Your task to perform on an android device: Open the web browser Image 0: 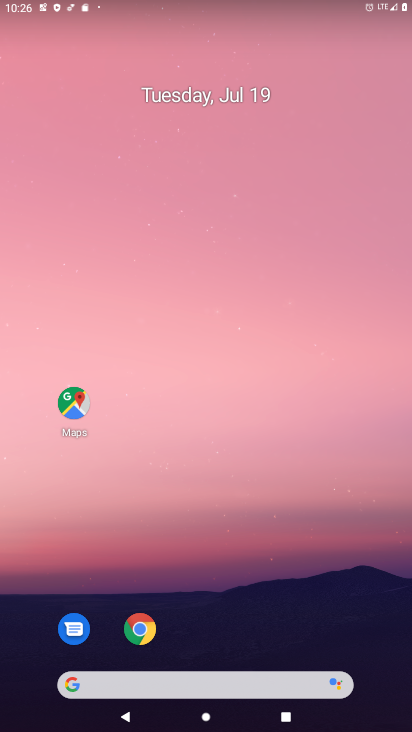
Step 0: click (141, 619)
Your task to perform on an android device: Open the web browser Image 1: 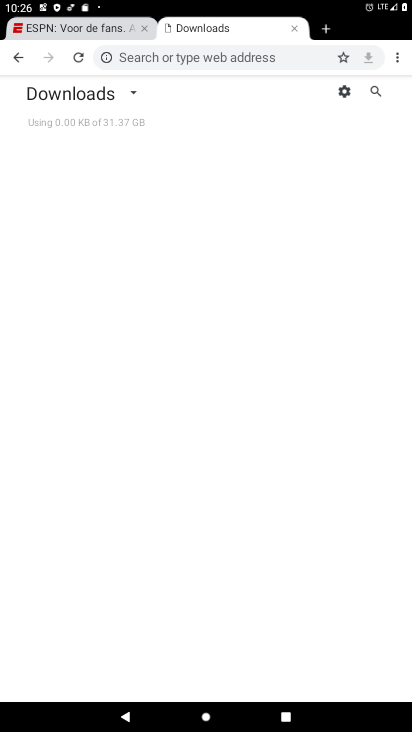
Step 1: click (291, 27)
Your task to perform on an android device: Open the web browser Image 2: 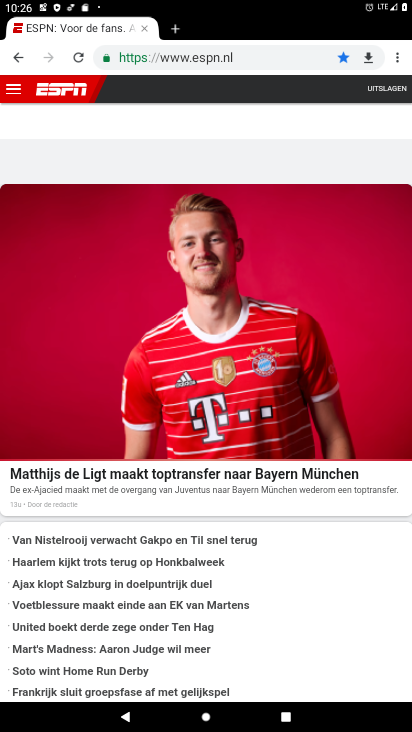
Step 2: task complete